Your task to perform on an android device: delete browsing data in the chrome app Image 0: 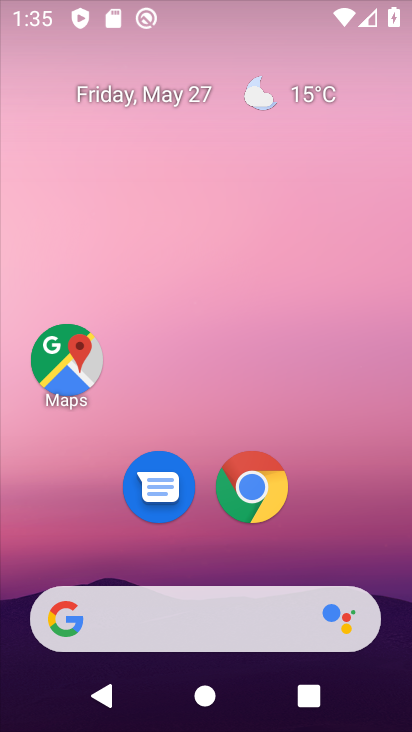
Step 0: press home button
Your task to perform on an android device: delete browsing data in the chrome app Image 1: 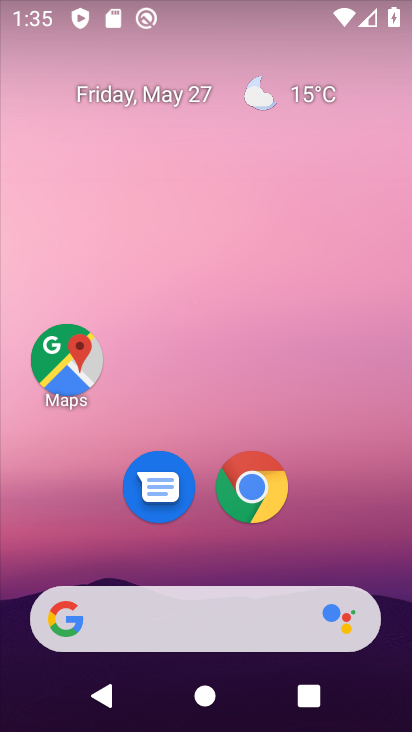
Step 1: drag from (318, 231) to (311, 477)
Your task to perform on an android device: delete browsing data in the chrome app Image 2: 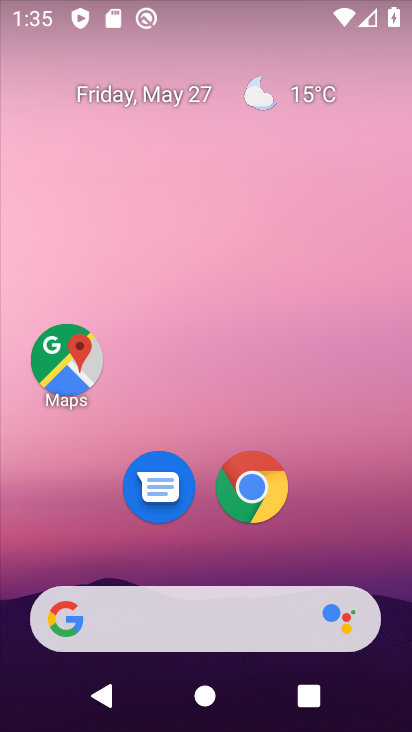
Step 2: click (296, 93)
Your task to perform on an android device: delete browsing data in the chrome app Image 3: 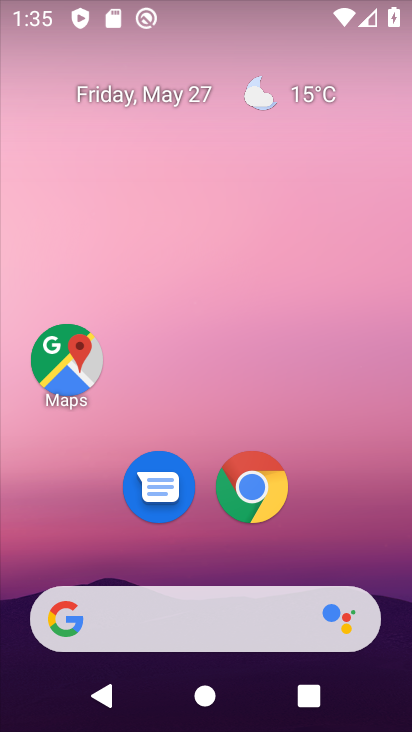
Step 3: click (295, 99)
Your task to perform on an android device: delete browsing data in the chrome app Image 4: 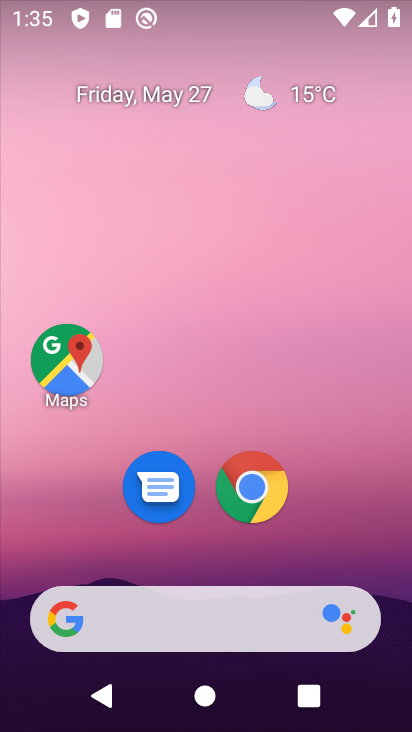
Step 4: click (302, 96)
Your task to perform on an android device: delete browsing data in the chrome app Image 5: 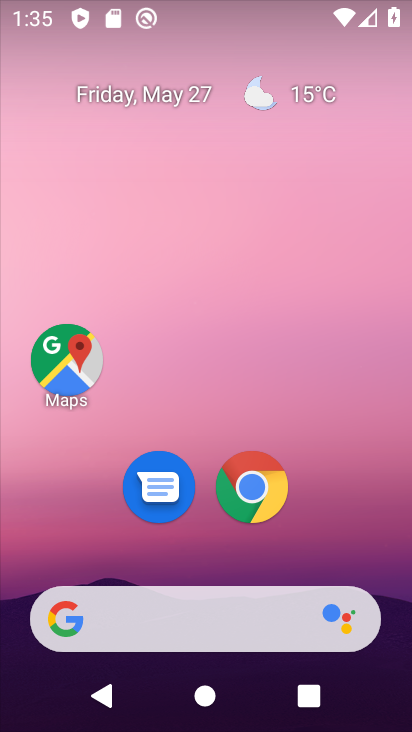
Step 5: click (302, 96)
Your task to perform on an android device: delete browsing data in the chrome app Image 6: 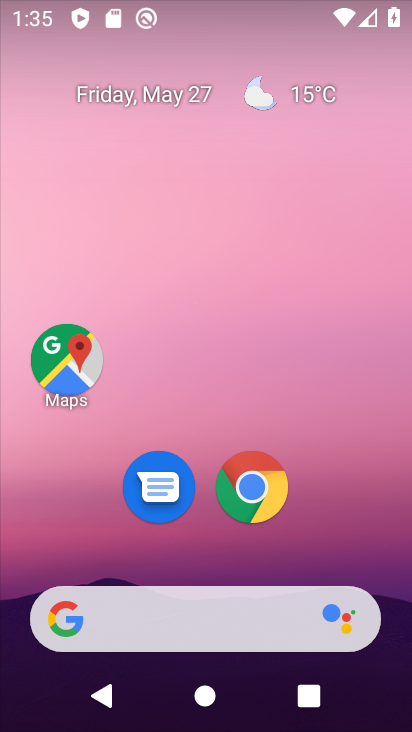
Step 6: click (283, 397)
Your task to perform on an android device: delete browsing data in the chrome app Image 7: 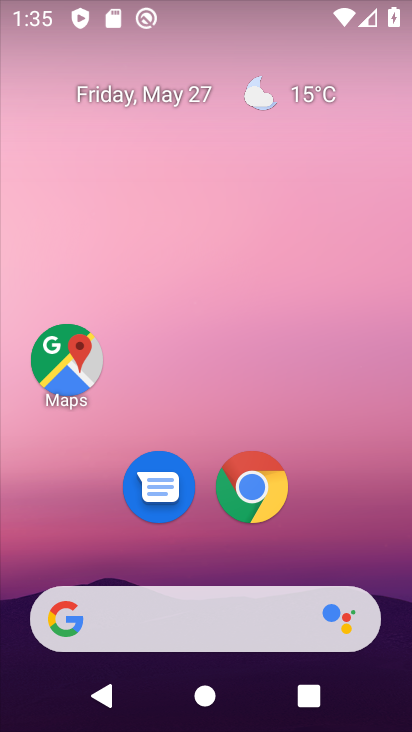
Step 7: click (302, 94)
Your task to perform on an android device: delete browsing data in the chrome app Image 8: 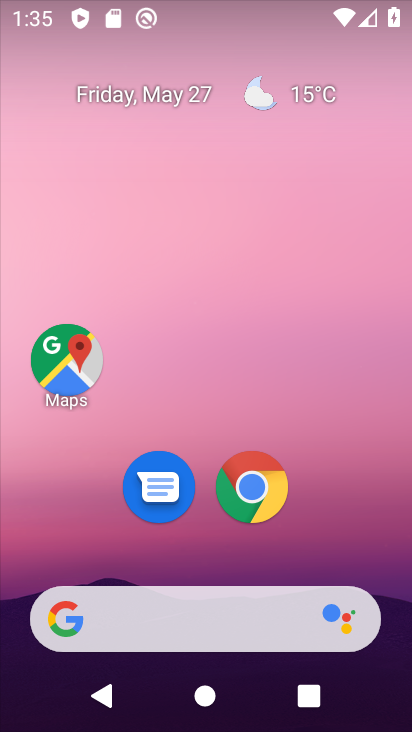
Step 8: click (296, 94)
Your task to perform on an android device: delete browsing data in the chrome app Image 9: 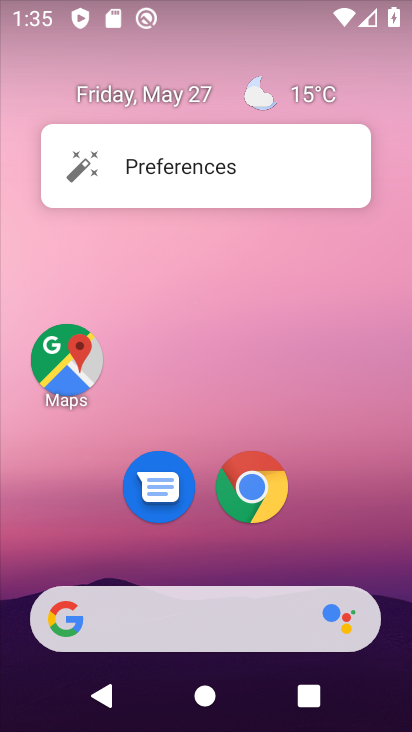
Step 9: click (327, 538)
Your task to perform on an android device: delete browsing data in the chrome app Image 10: 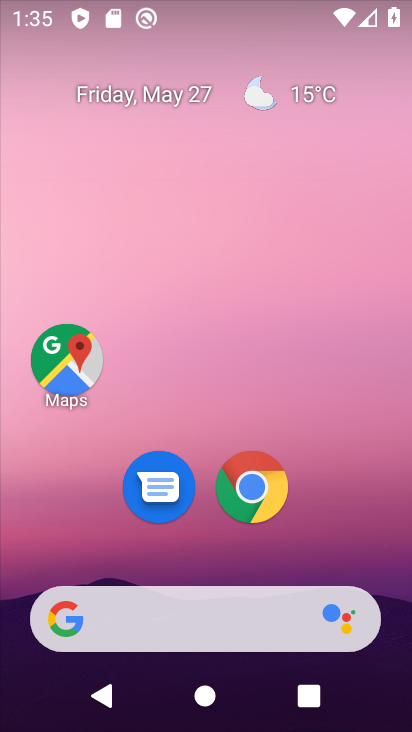
Step 10: click (324, 100)
Your task to perform on an android device: delete browsing data in the chrome app Image 11: 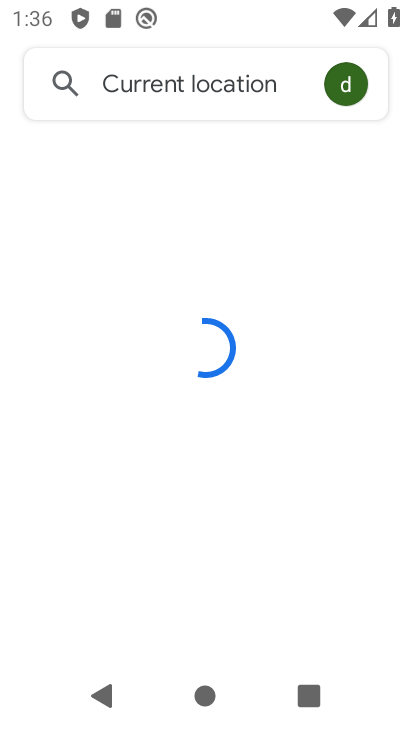
Step 11: press home button
Your task to perform on an android device: delete browsing data in the chrome app Image 12: 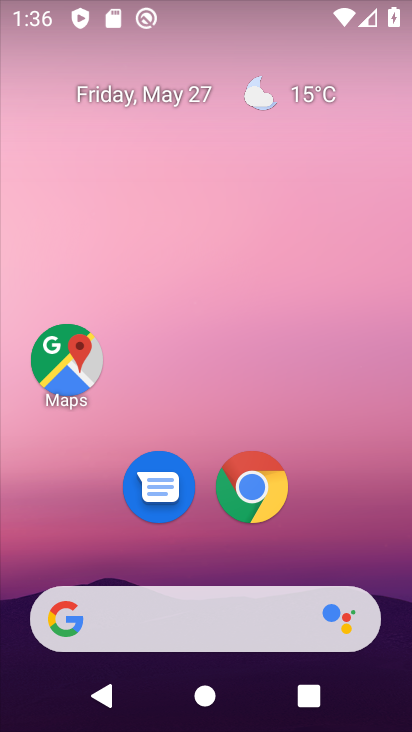
Step 12: drag from (305, 505) to (234, 66)
Your task to perform on an android device: delete browsing data in the chrome app Image 13: 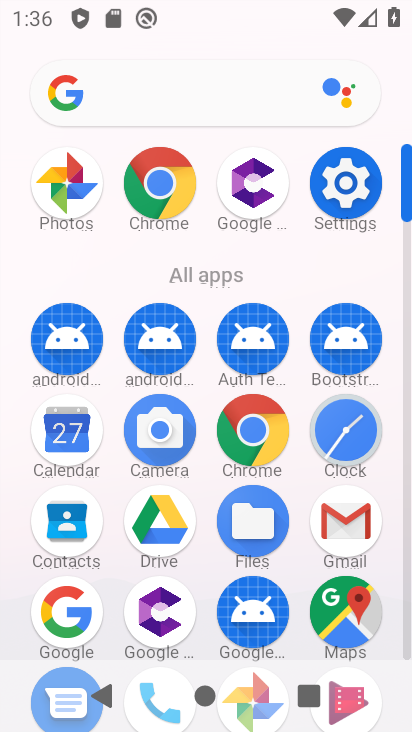
Step 13: click (244, 434)
Your task to perform on an android device: delete browsing data in the chrome app Image 14: 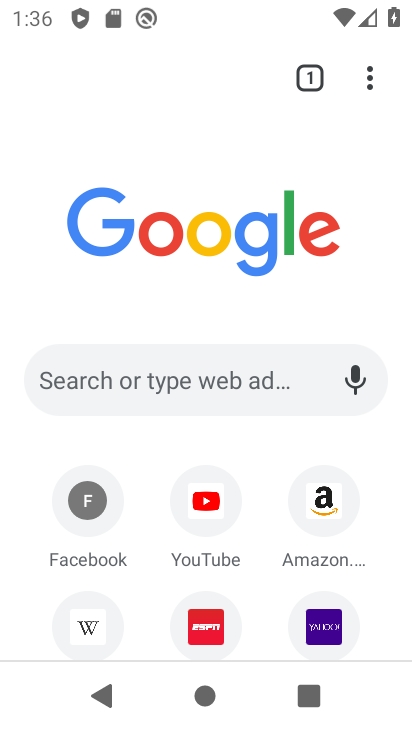
Step 14: task complete